Your task to perform on an android device: Search for pizza restaurants on Maps Image 0: 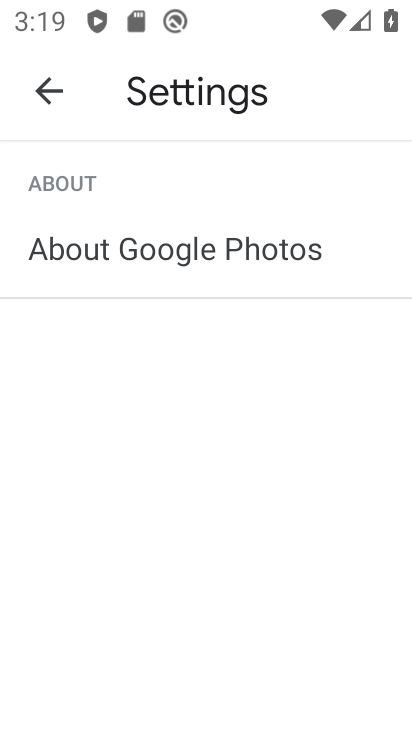
Step 0: press home button
Your task to perform on an android device: Search for pizza restaurants on Maps Image 1: 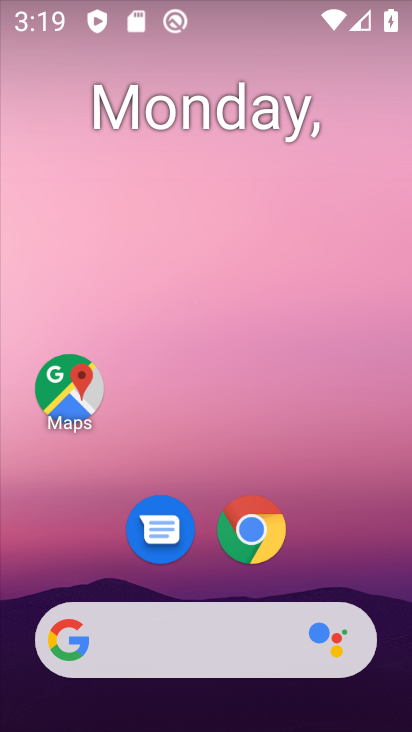
Step 1: drag from (235, 453) to (295, 226)
Your task to perform on an android device: Search for pizza restaurants on Maps Image 2: 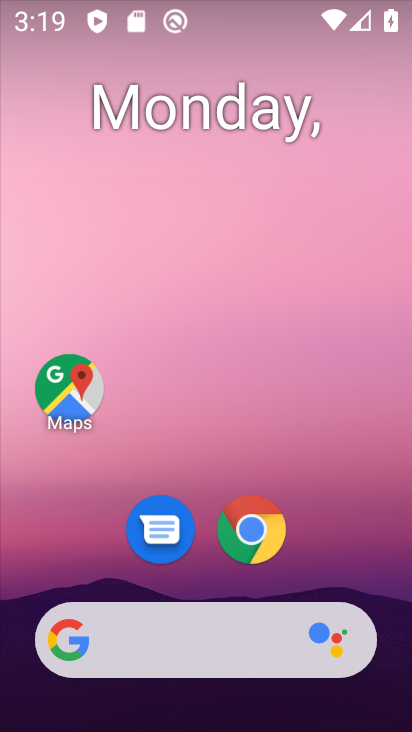
Step 2: drag from (204, 581) to (361, 29)
Your task to perform on an android device: Search for pizza restaurants on Maps Image 3: 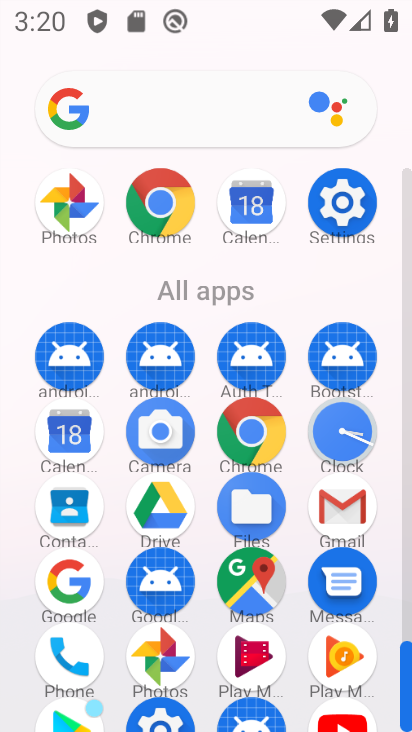
Step 3: click (243, 579)
Your task to perform on an android device: Search for pizza restaurants on Maps Image 4: 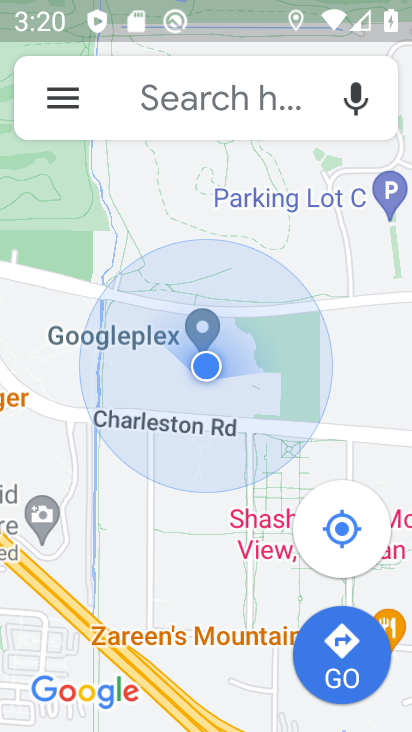
Step 4: click (220, 93)
Your task to perform on an android device: Search for pizza restaurants on Maps Image 5: 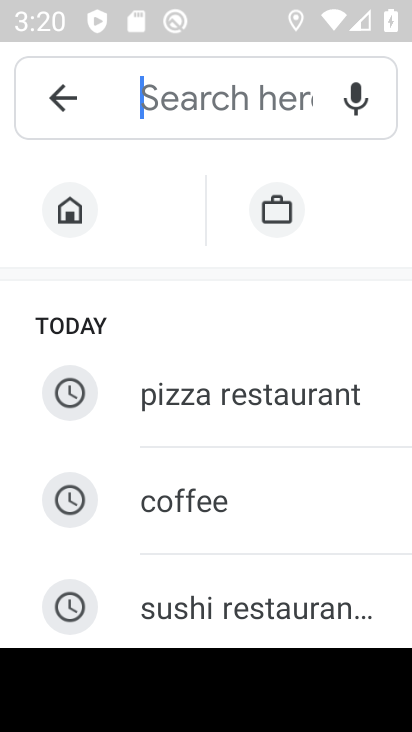
Step 5: type "pizza restaurants"
Your task to perform on an android device: Search for pizza restaurants on Maps Image 6: 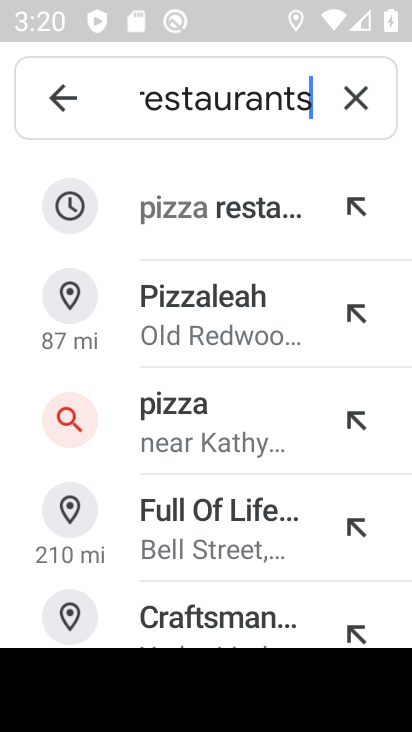
Step 6: click (207, 203)
Your task to perform on an android device: Search for pizza restaurants on Maps Image 7: 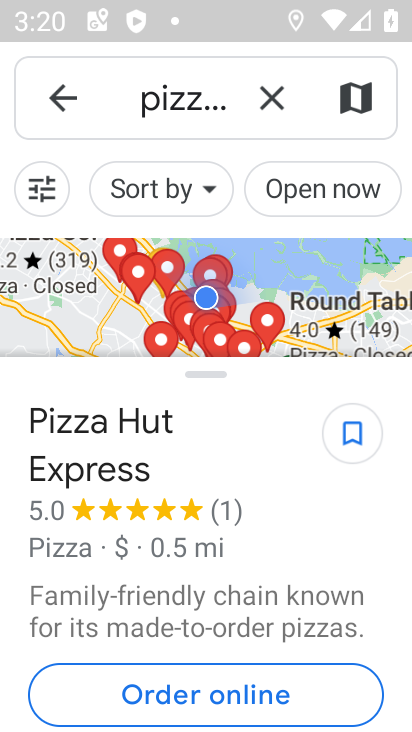
Step 7: task complete